Your task to perform on an android device: Empty the shopping cart on bestbuy. Add dell alienware to the cart on bestbuy, then select checkout. Image 0: 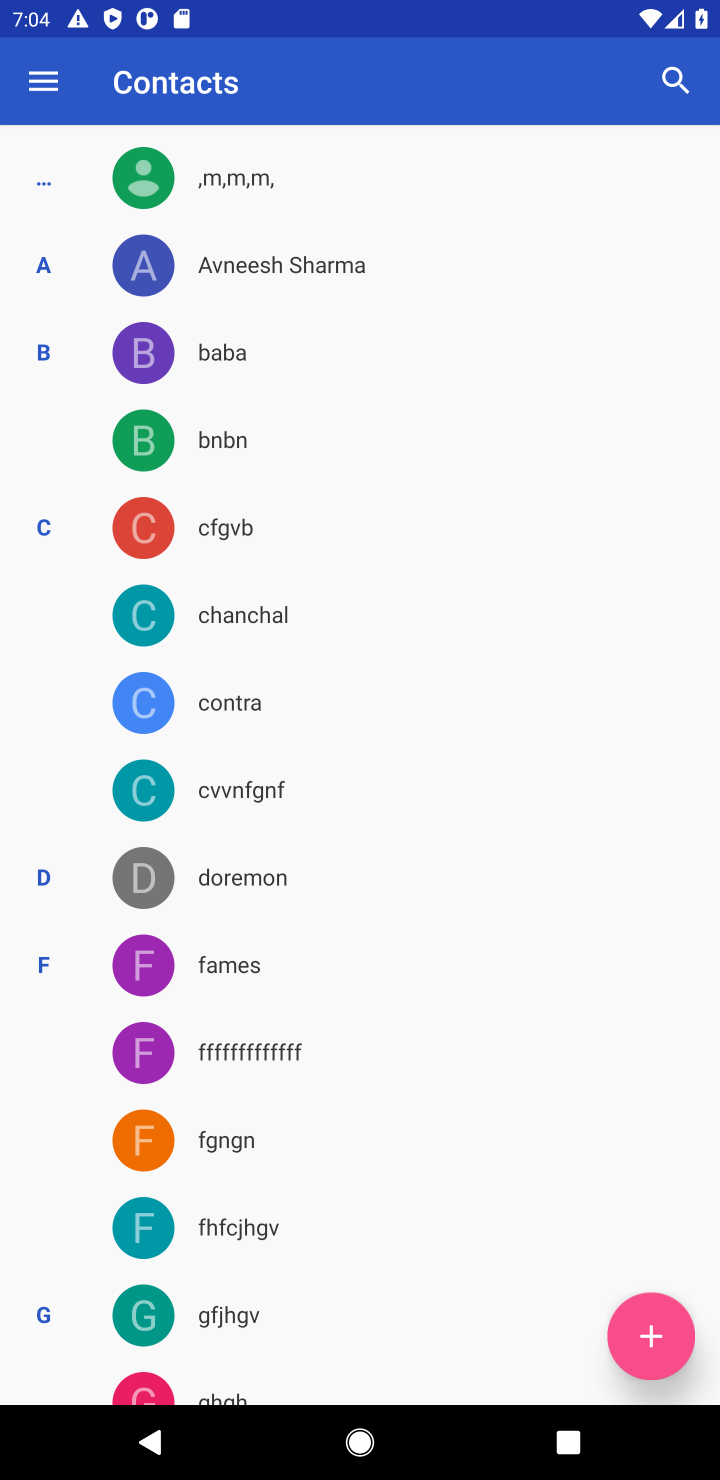
Step 0: press home button
Your task to perform on an android device: Empty the shopping cart on bestbuy. Add dell alienware to the cart on bestbuy, then select checkout. Image 1: 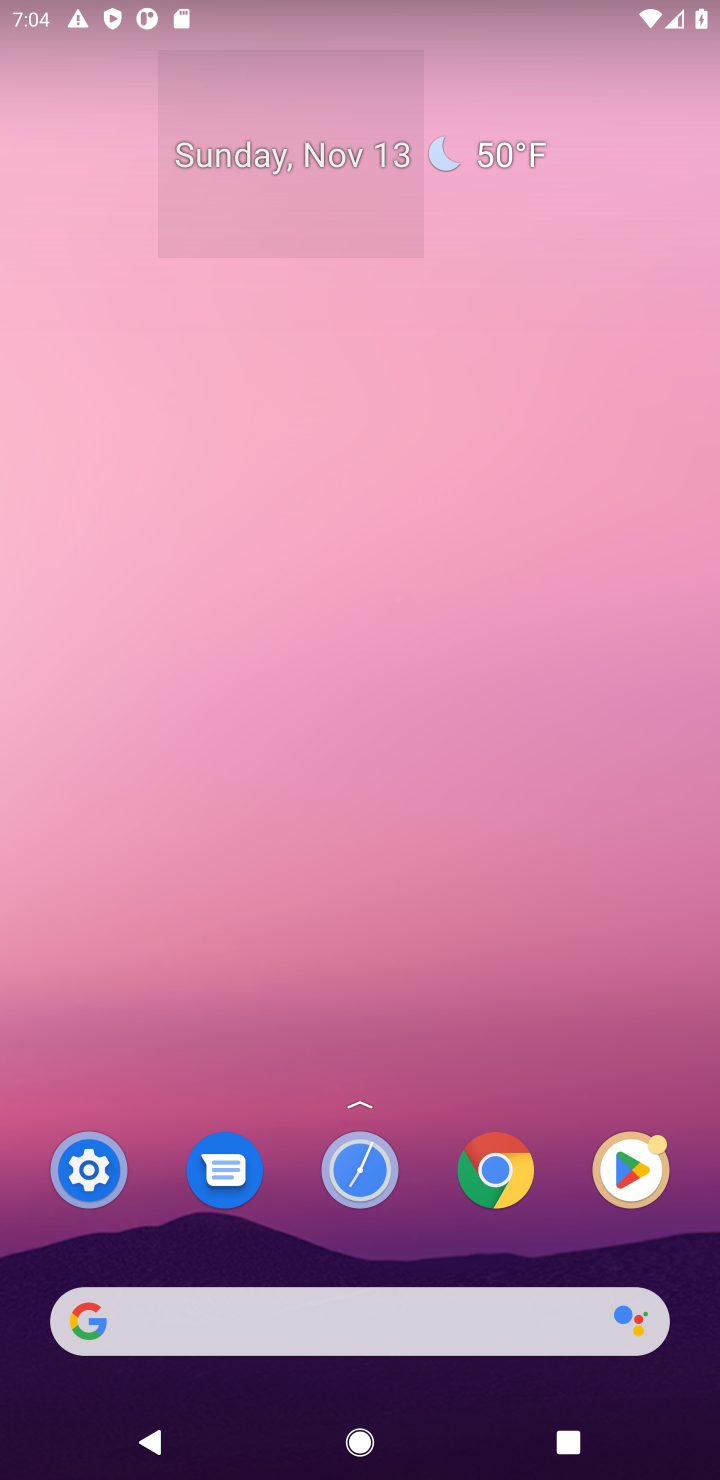
Step 1: click (428, 1328)
Your task to perform on an android device: Empty the shopping cart on bestbuy. Add dell alienware to the cart on bestbuy, then select checkout. Image 2: 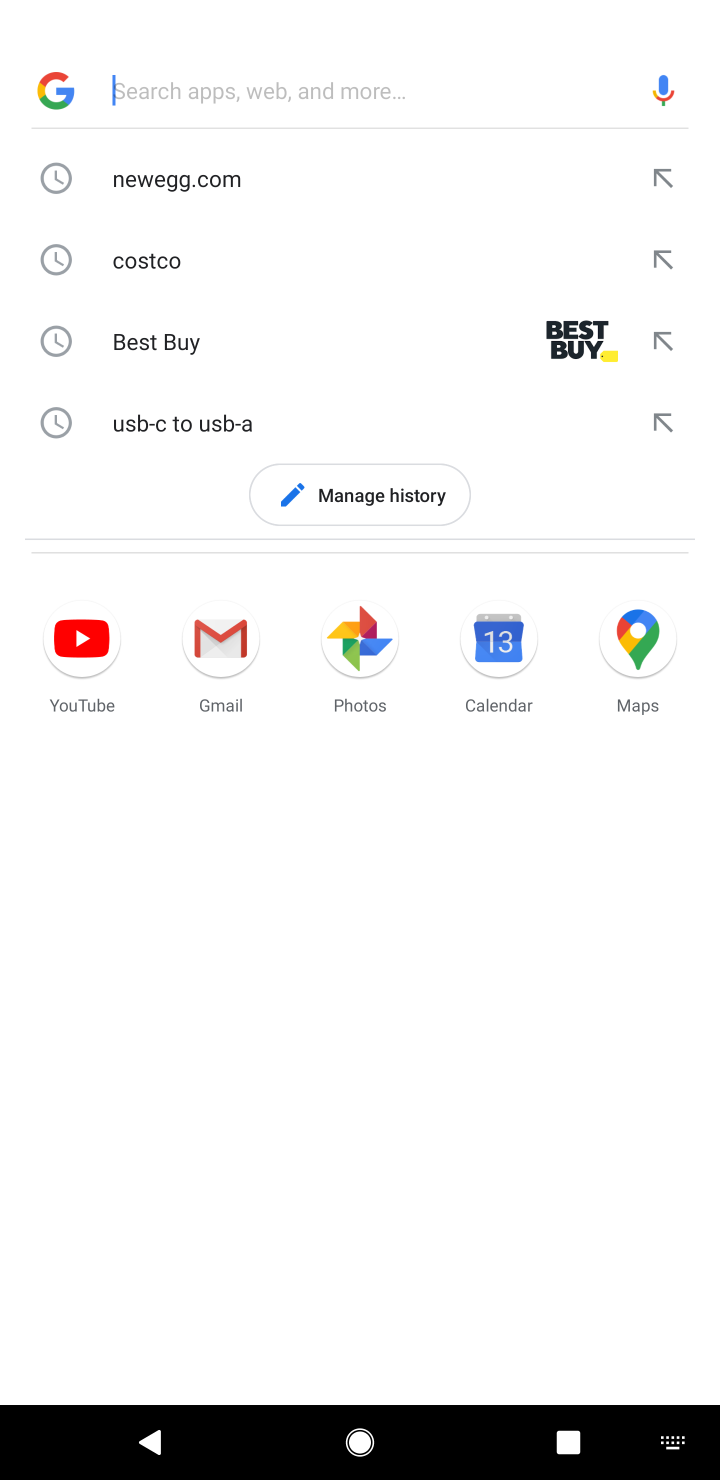
Step 2: type "bestbu"
Your task to perform on an android device: Empty the shopping cart on bestbuy. Add dell alienware to the cart on bestbuy, then select checkout. Image 3: 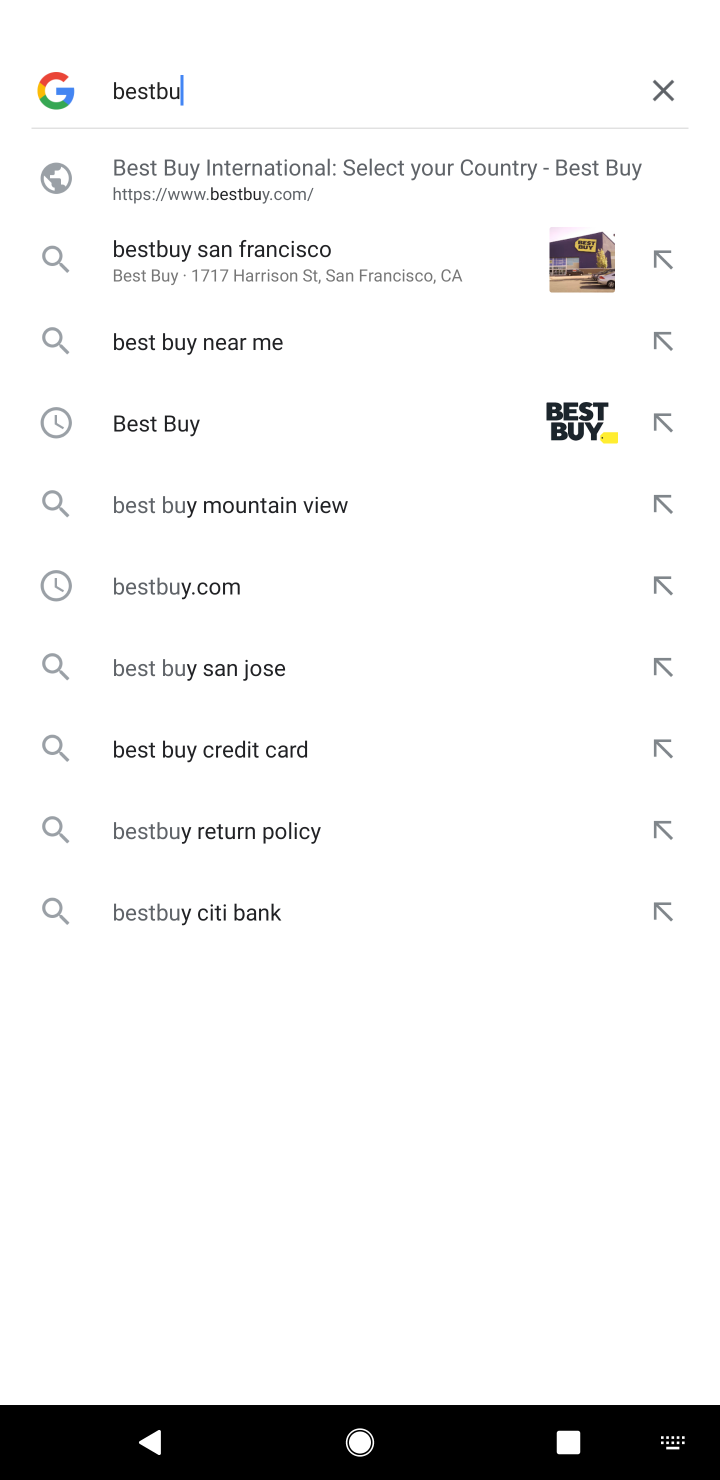
Step 3: click (209, 436)
Your task to perform on an android device: Empty the shopping cart on bestbuy. Add dell alienware to the cart on bestbuy, then select checkout. Image 4: 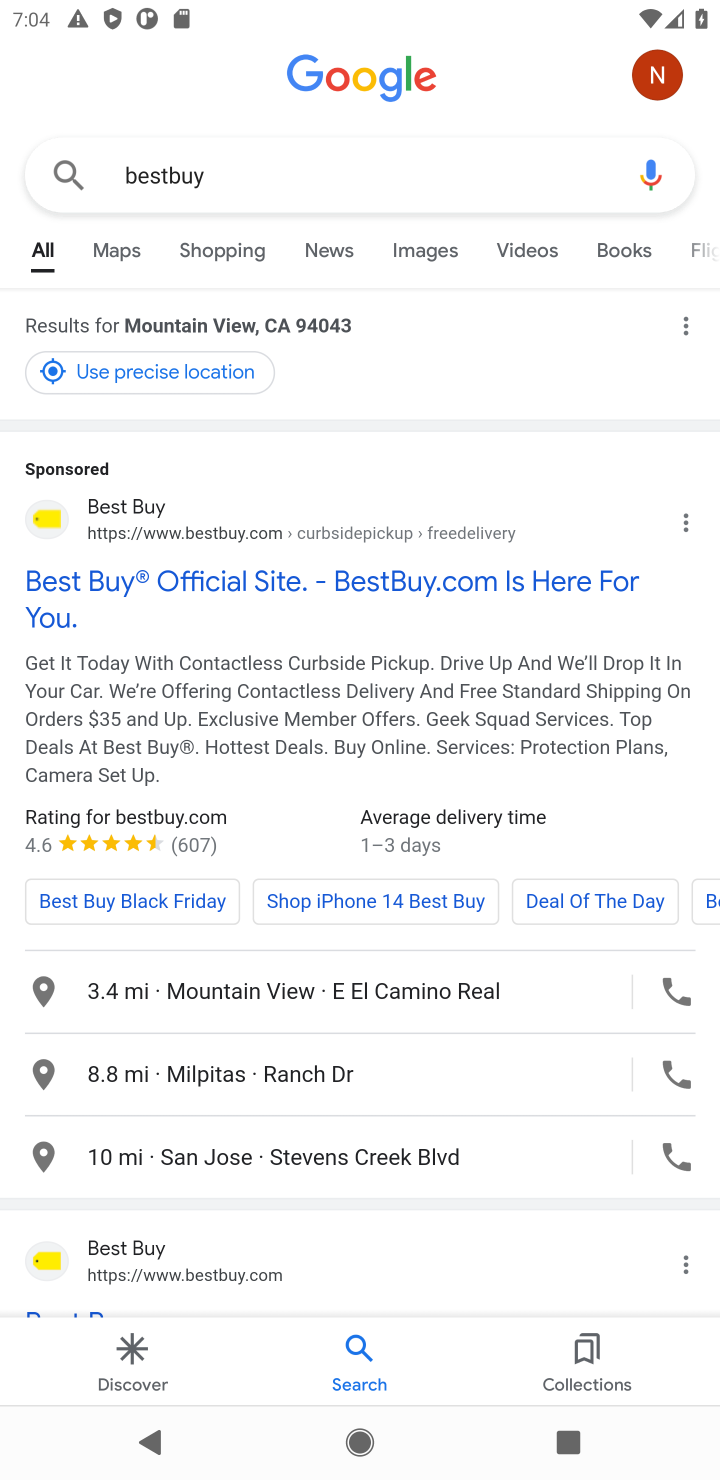
Step 4: click (154, 591)
Your task to perform on an android device: Empty the shopping cart on bestbuy. Add dell alienware to the cart on bestbuy, then select checkout. Image 5: 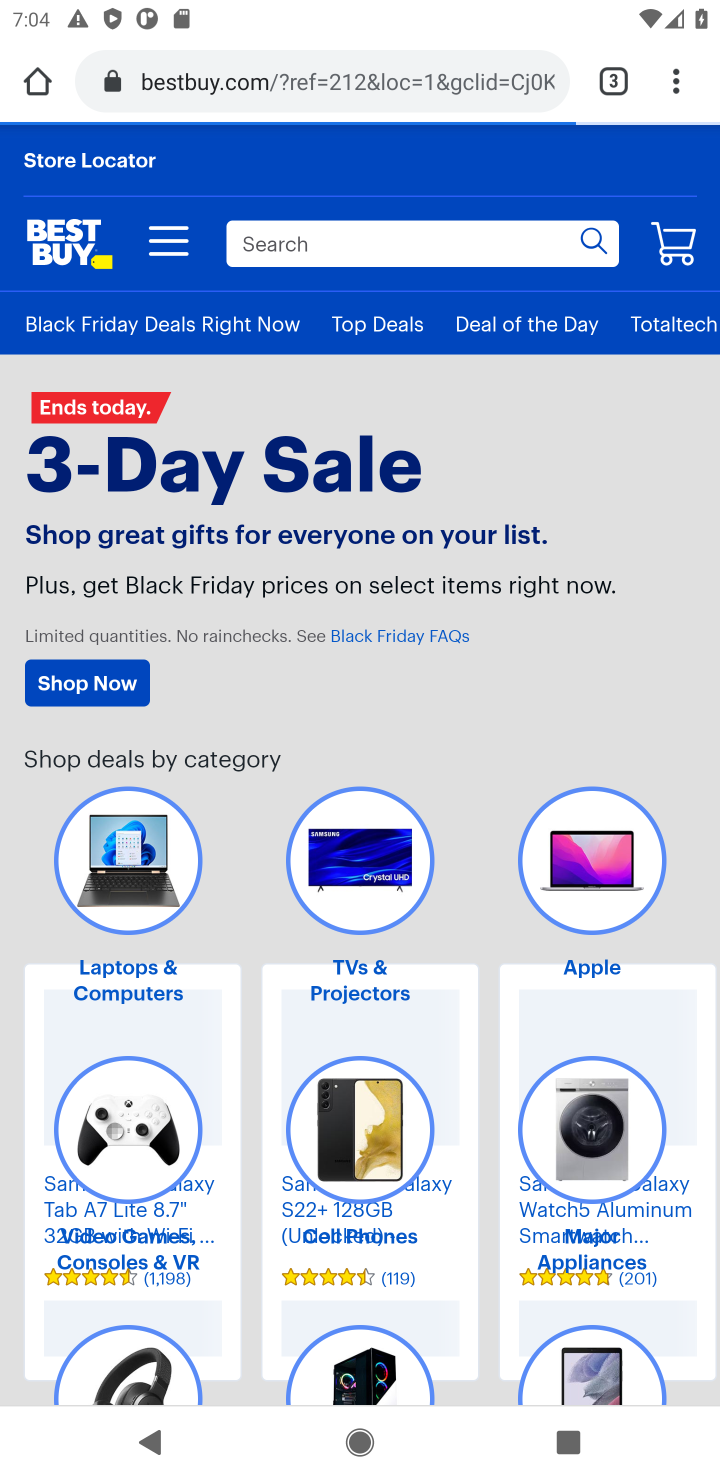
Step 5: task complete